Your task to perform on an android device: choose inbox layout in the gmail app Image 0: 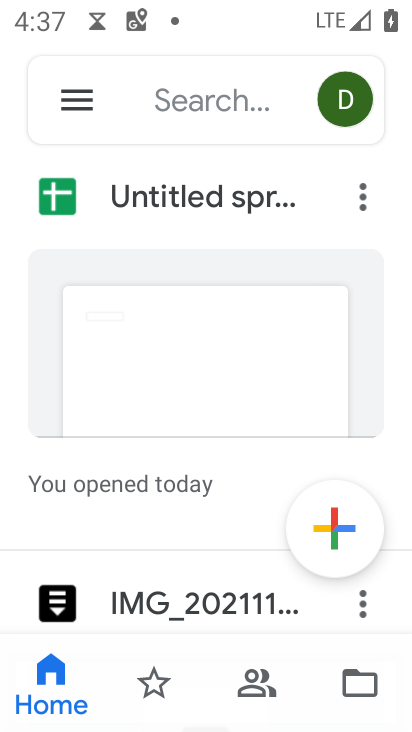
Step 0: press home button
Your task to perform on an android device: choose inbox layout in the gmail app Image 1: 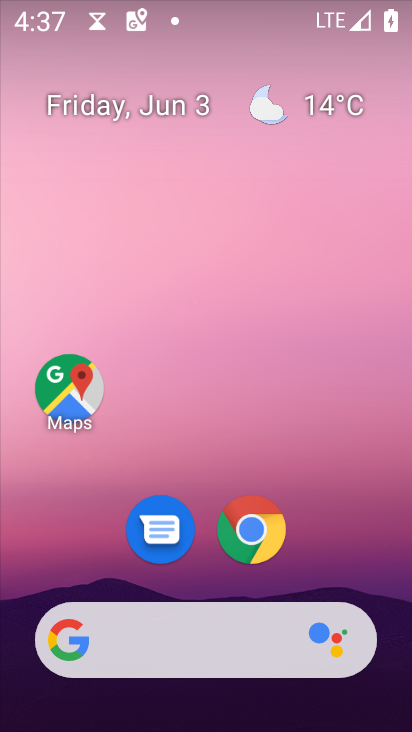
Step 1: drag from (284, 432) to (274, 30)
Your task to perform on an android device: choose inbox layout in the gmail app Image 2: 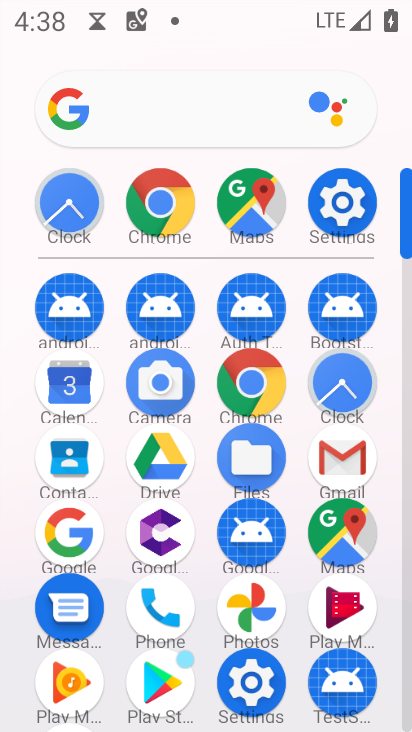
Step 2: click (352, 468)
Your task to perform on an android device: choose inbox layout in the gmail app Image 3: 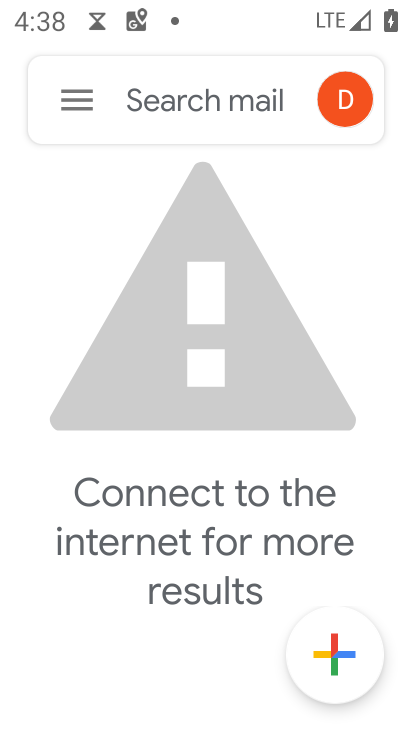
Step 3: click (65, 129)
Your task to perform on an android device: choose inbox layout in the gmail app Image 4: 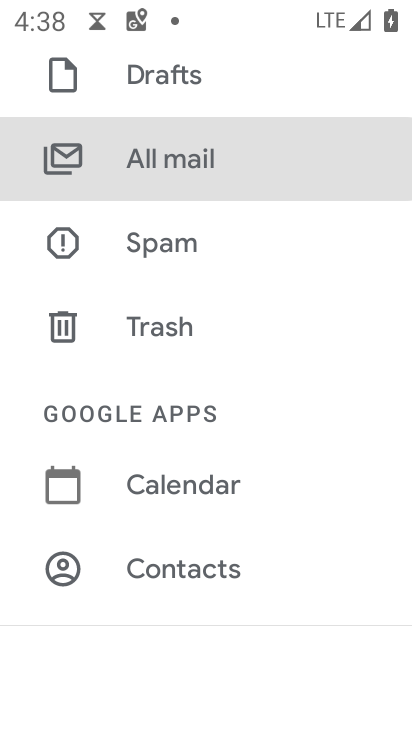
Step 4: drag from (218, 593) to (247, 58)
Your task to perform on an android device: choose inbox layout in the gmail app Image 5: 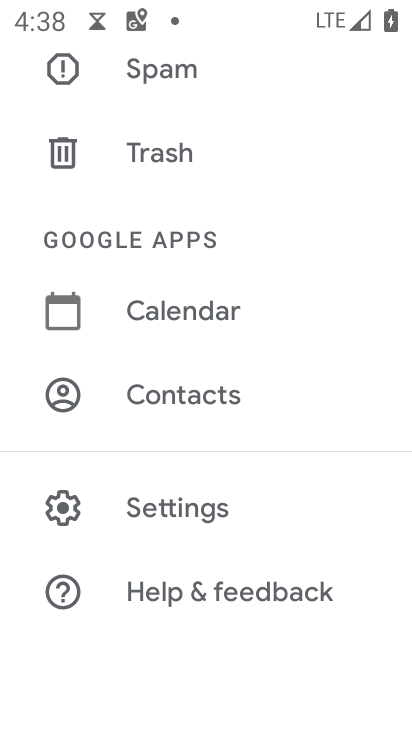
Step 5: click (206, 510)
Your task to perform on an android device: choose inbox layout in the gmail app Image 6: 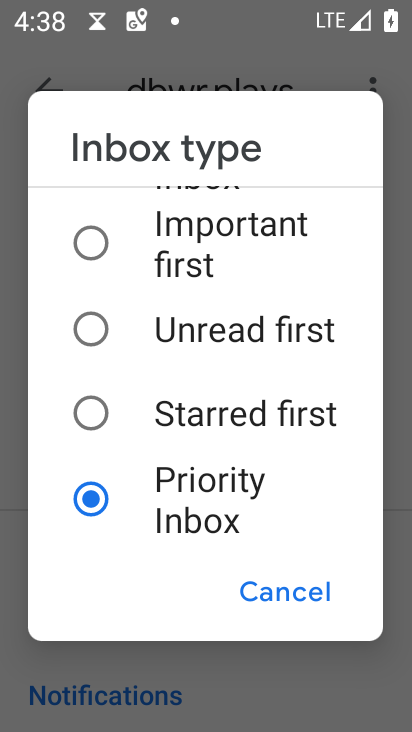
Step 6: click (153, 327)
Your task to perform on an android device: choose inbox layout in the gmail app Image 7: 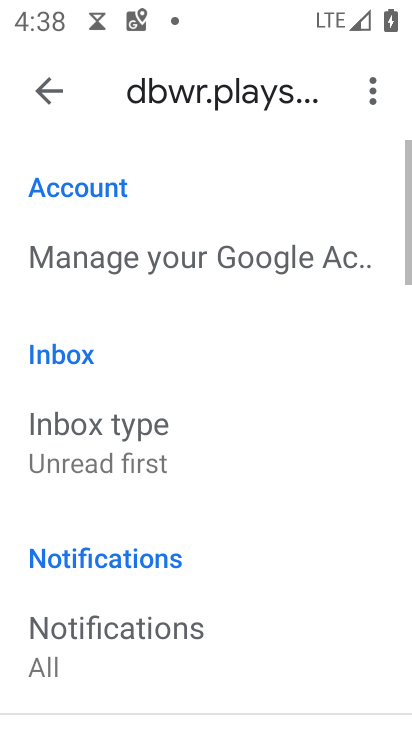
Step 7: task complete